Your task to perform on an android device: Open a new private tab in Chrome Image 0: 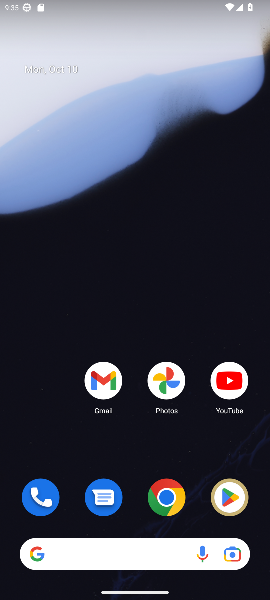
Step 0: drag from (127, 293) to (146, 134)
Your task to perform on an android device: Open a new private tab in Chrome Image 1: 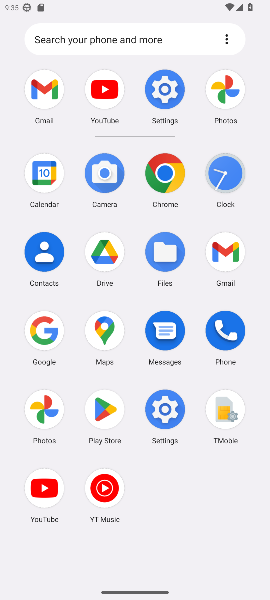
Step 1: click (167, 165)
Your task to perform on an android device: Open a new private tab in Chrome Image 2: 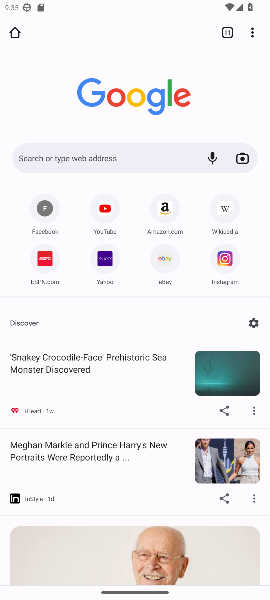
Step 2: click (250, 26)
Your task to perform on an android device: Open a new private tab in Chrome Image 3: 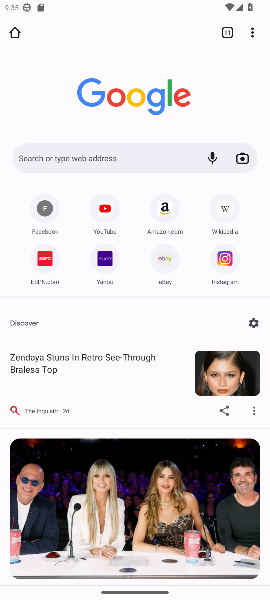
Step 3: click (254, 23)
Your task to perform on an android device: Open a new private tab in Chrome Image 4: 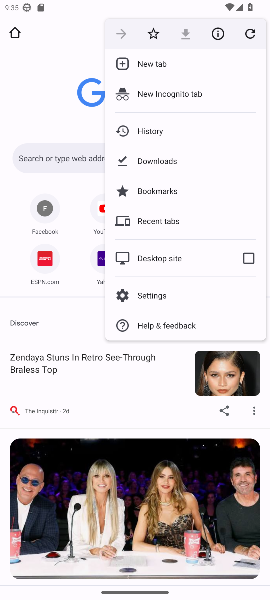
Step 4: click (153, 65)
Your task to perform on an android device: Open a new private tab in Chrome Image 5: 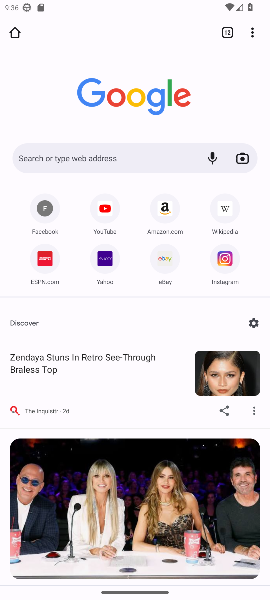
Step 5: task complete